Your task to perform on an android device: star an email in the gmail app Image 0: 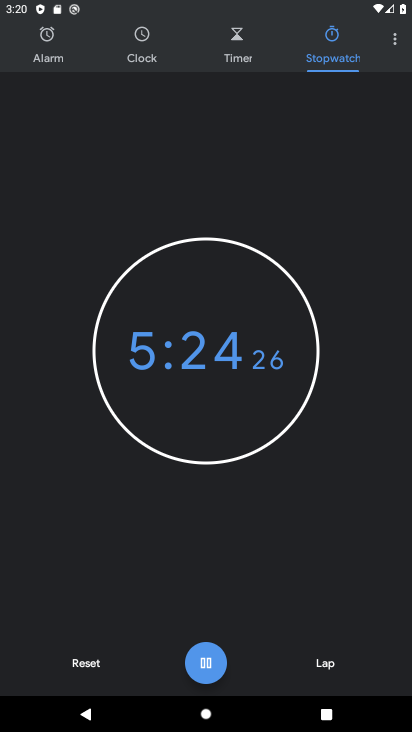
Step 0: press home button
Your task to perform on an android device: star an email in the gmail app Image 1: 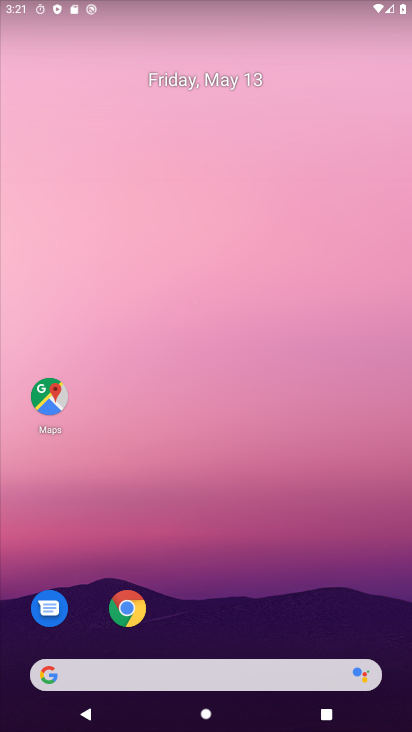
Step 1: drag from (358, 601) to (338, 79)
Your task to perform on an android device: star an email in the gmail app Image 2: 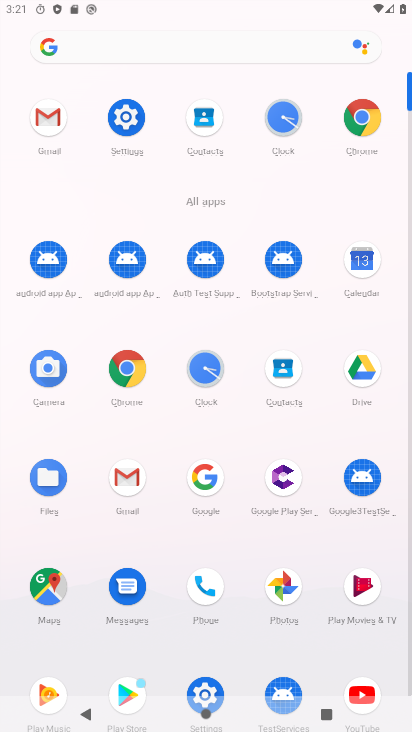
Step 2: click (55, 122)
Your task to perform on an android device: star an email in the gmail app Image 3: 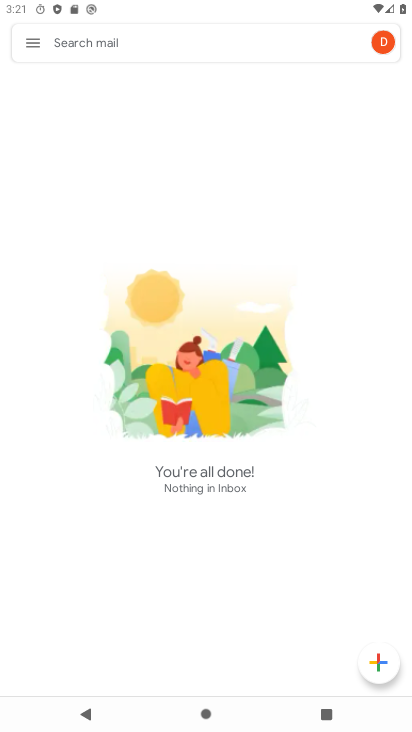
Step 3: click (31, 45)
Your task to perform on an android device: star an email in the gmail app Image 4: 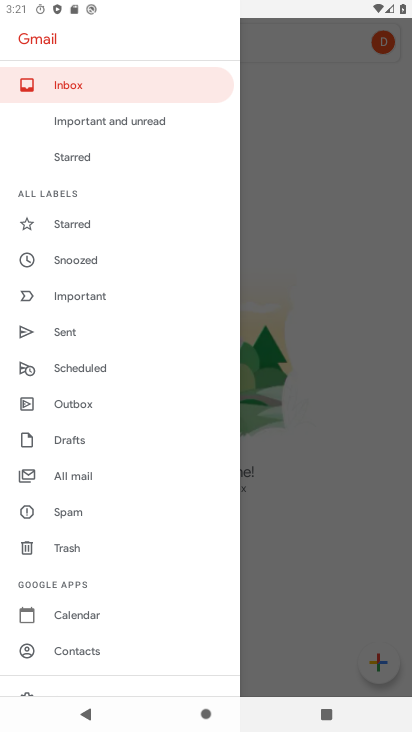
Step 4: click (284, 442)
Your task to perform on an android device: star an email in the gmail app Image 5: 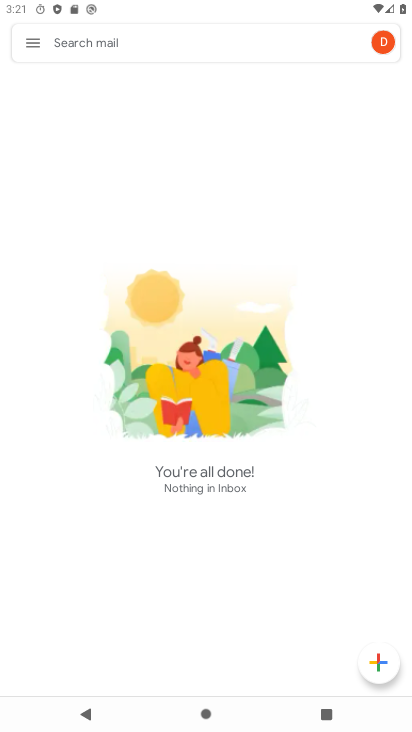
Step 5: task complete